Your task to perform on an android device: uninstall "Reddit" Image 0: 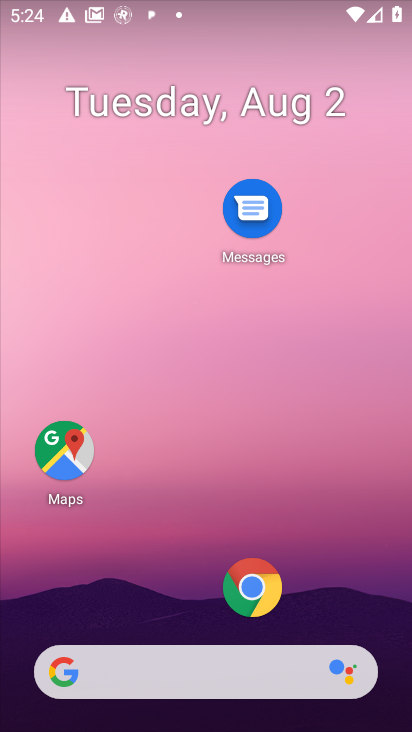
Step 0: drag from (169, 607) to (151, 159)
Your task to perform on an android device: uninstall "Reddit" Image 1: 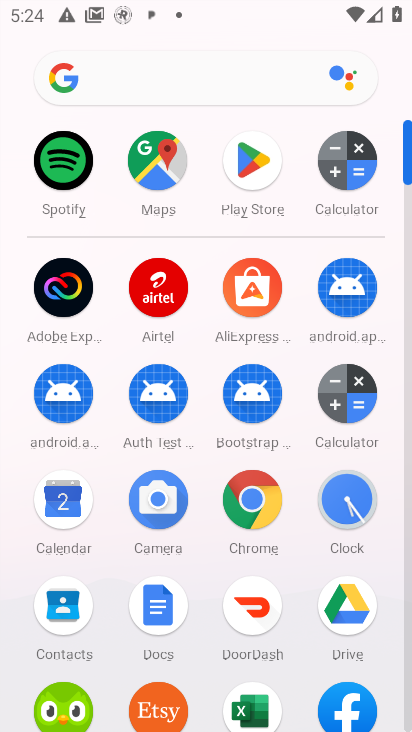
Step 1: click (264, 179)
Your task to perform on an android device: uninstall "Reddit" Image 2: 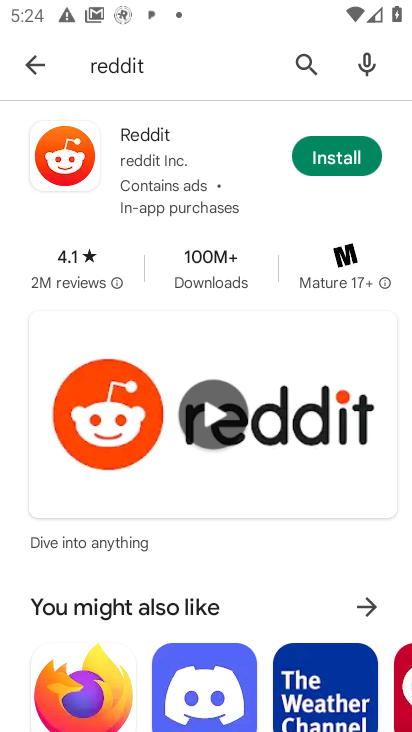
Step 2: click (298, 55)
Your task to perform on an android device: uninstall "Reddit" Image 3: 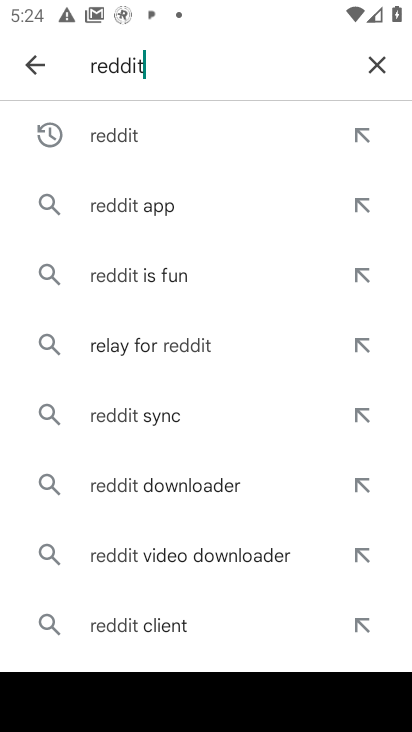
Step 3: click (94, 126)
Your task to perform on an android device: uninstall "Reddit" Image 4: 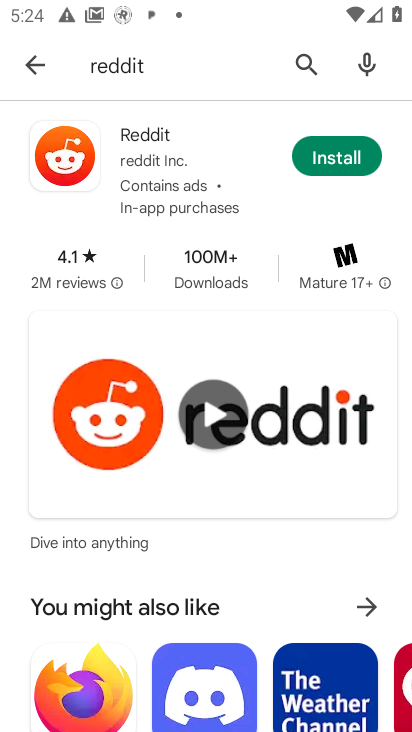
Step 4: task complete